Your task to perform on an android device: What's on my calendar tomorrow? Image 0: 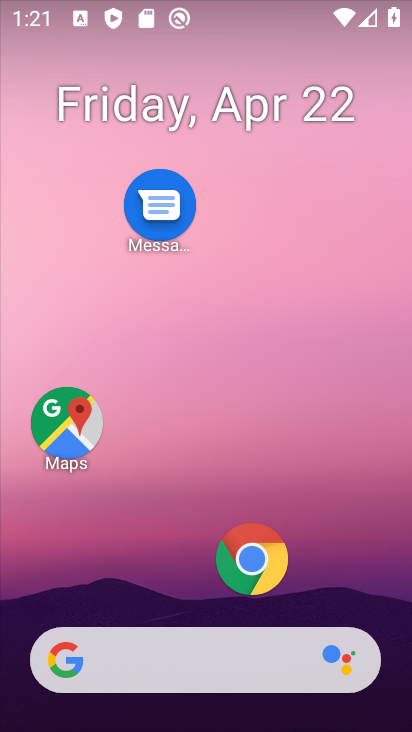
Step 0: drag from (196, 626) to (268, 221)
Your task to perform on an android device: What's on my calendar tomorrow? Image 1: 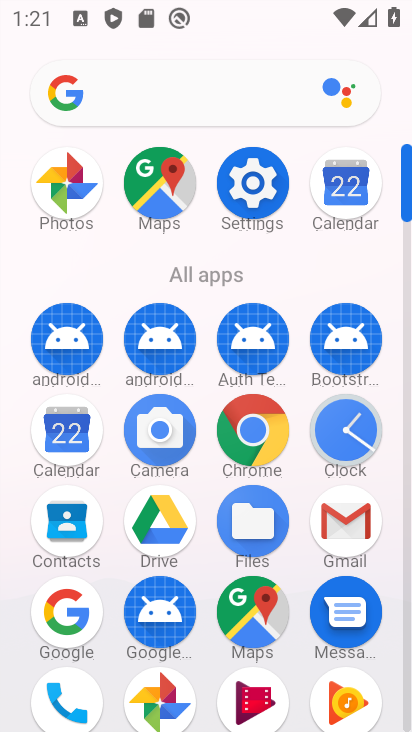
Step 1: click (60, 439)
Your task to perform on an android device: What's on my calendar tomorrow? Image 2: 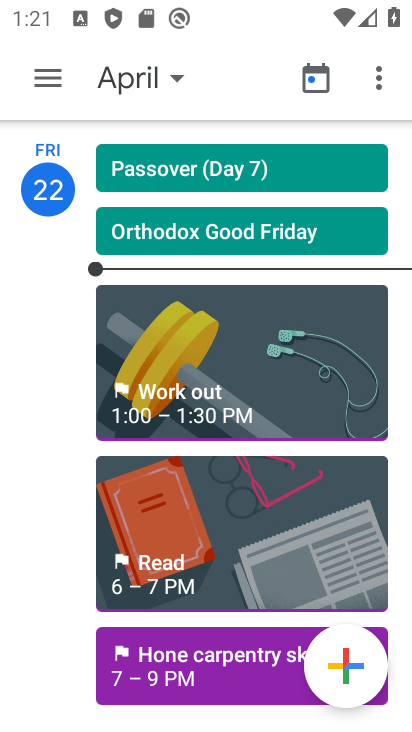
Step 2: drag from (198, 596) to (244, 350)
Your task to perform on an android device: What's on my calendar tomorrow? Image 3: 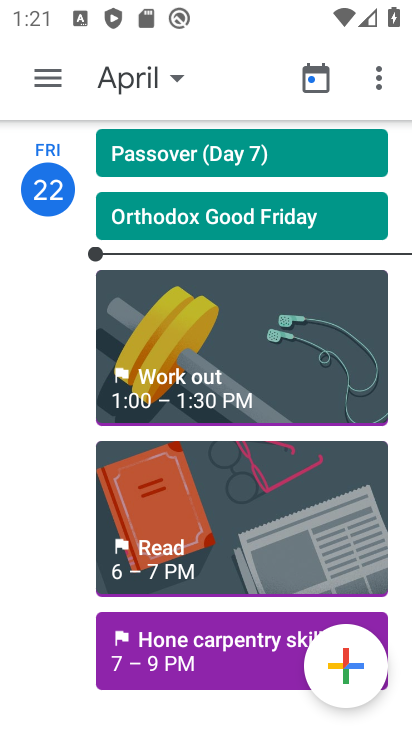
Step 3: drag from (220, 562) to (269, 226)
Your task to perform on an android device: What's on my calendar tomorrow? Image 4: 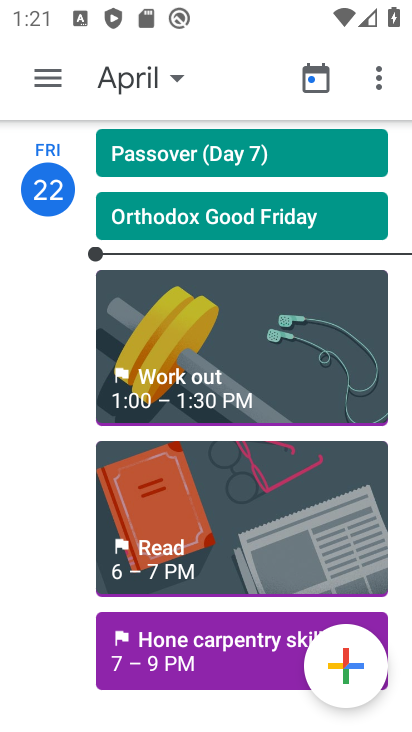
Step 4: click (158, 76)
Your task to perform on an android device: What's on my calendar tomorrow? Image 5: 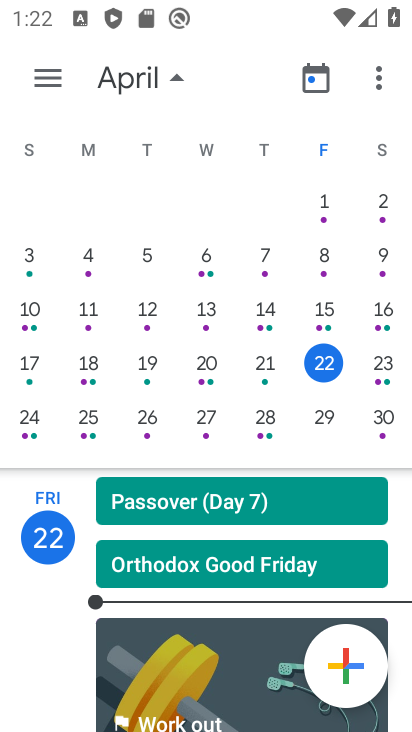
Step 5: click (389, 367)
Your task to perform on an android device: What's on my calendar tomorrow? Image 6: 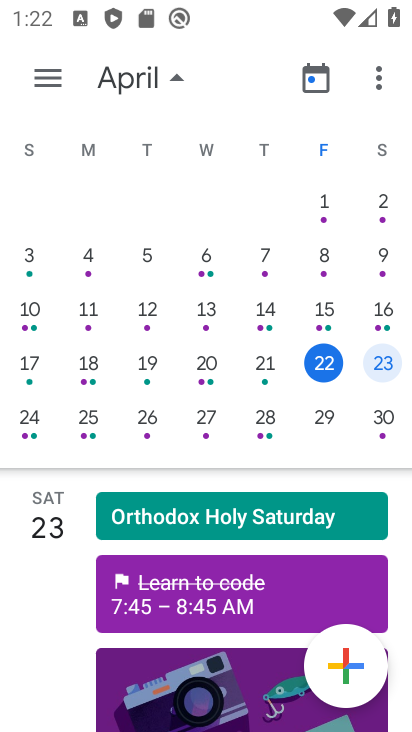
Step 6: task complete